Your task to perform on an android device: What's the weather going to be this weekend? Image 0: 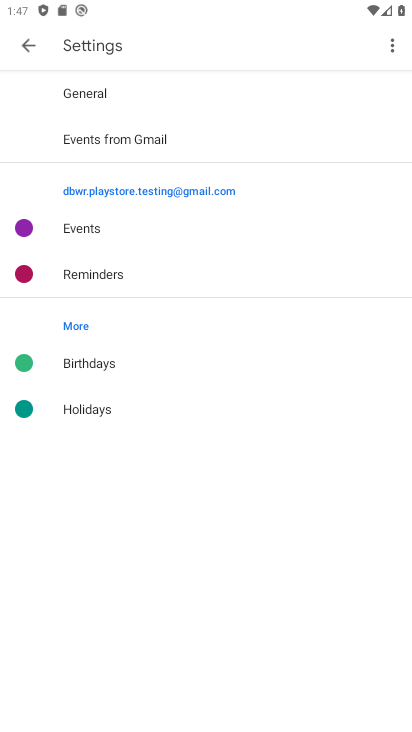
Step 0: press home button
Your task to perform on an android device: What's the weather going to be this weekend? Image 1: 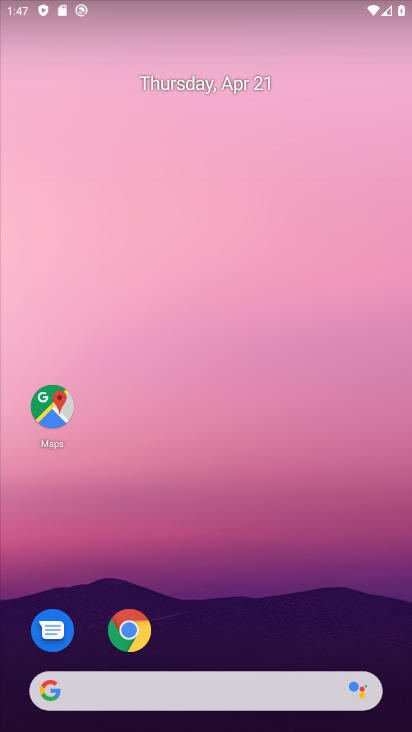
Step 1: drag from (266, 622) to (272, 127)
Your task to perform on an android device: What's the weather going to be this weekend? Image 2: 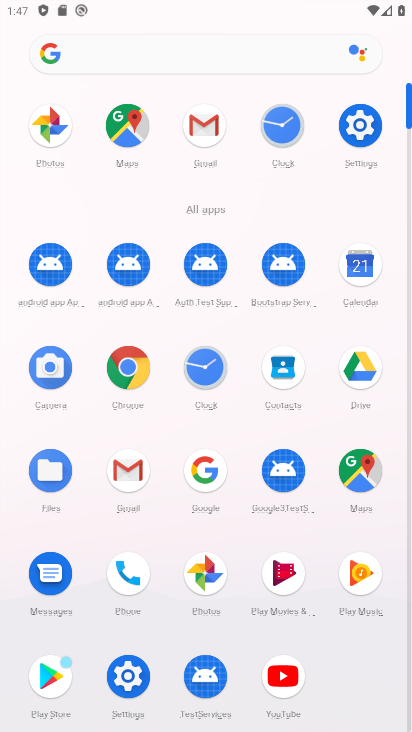
Step 2: click (129, 365)
Your task to perform on an android device: What's the weather going to be this weekend? Image 3: 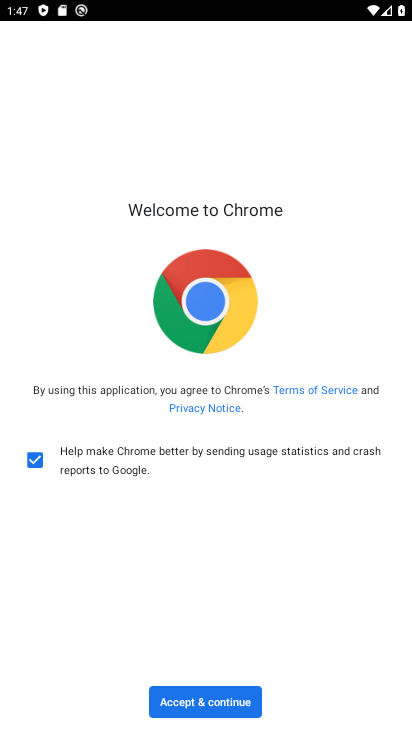
Step 3: click (188, 691)
Your task to perform on an android device: What's the weather going to be this weekend? Image 4: 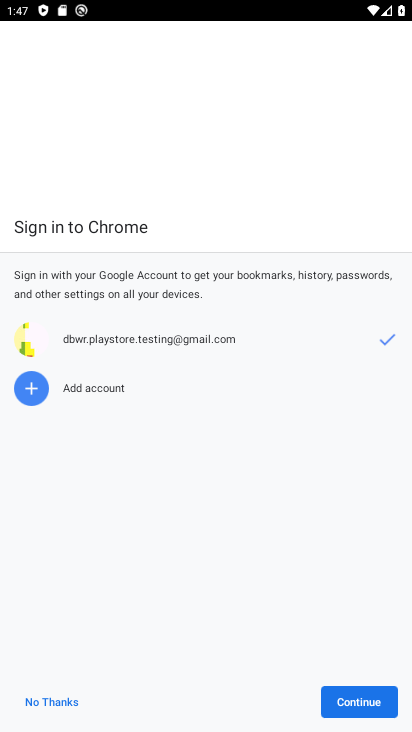
Step 4: click (363, 700)
Your task to perform on an android device: What's the weather going to be this weekend? Image 5: 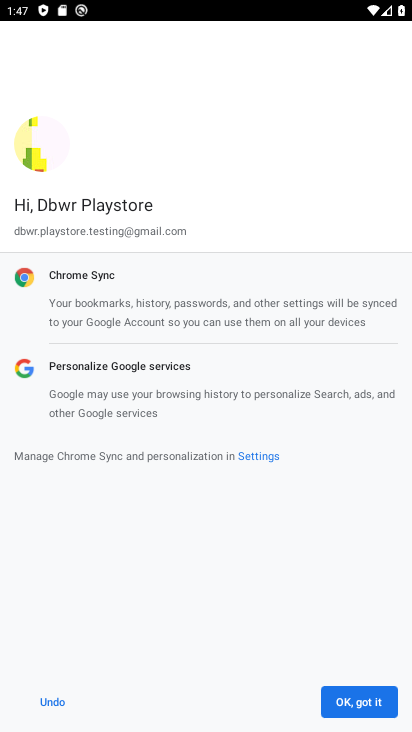
Step 5: click (363, 700)
Your task to perform on an android device: What's the weather going to be this weekend? Image 6: 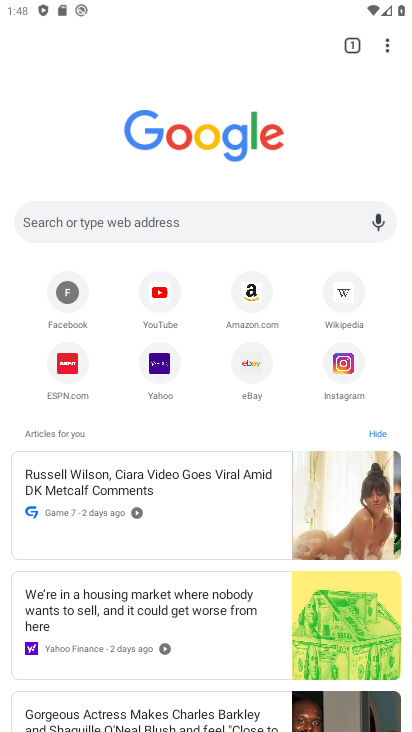
Step 6: click (228, 221)
Your task to perform on an android device: What's the weather going to be this weekend? Image 7: 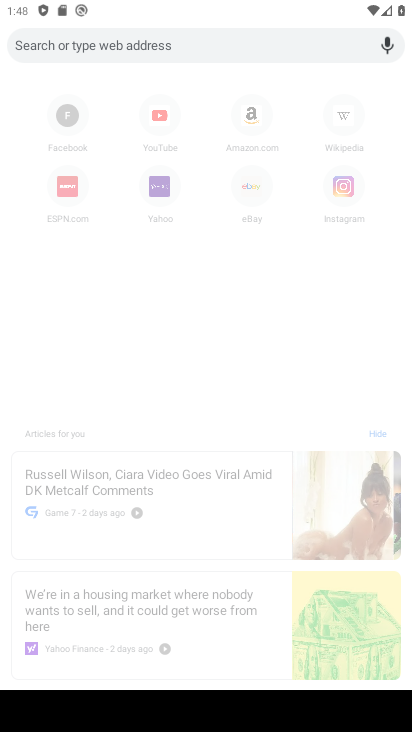
Step 7: type "what's the weather going to be this weekend"
Your task to perform on an android device: What's the weather going to be this weekend? Image 8: 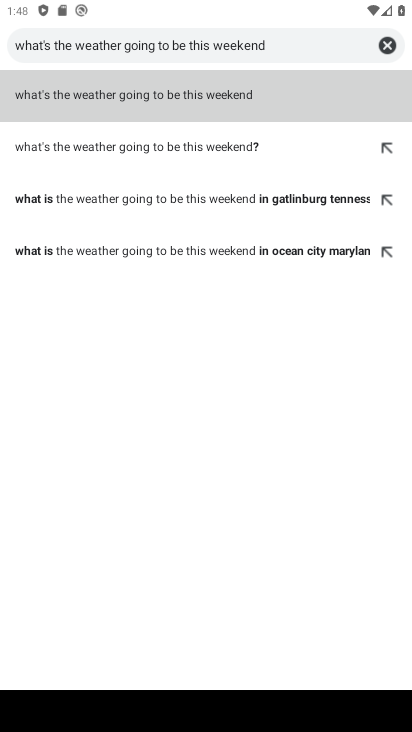
Step 8: click (217, 99)
Your task to perform on an android device: What's the weather going to be this weekend? Image 9: 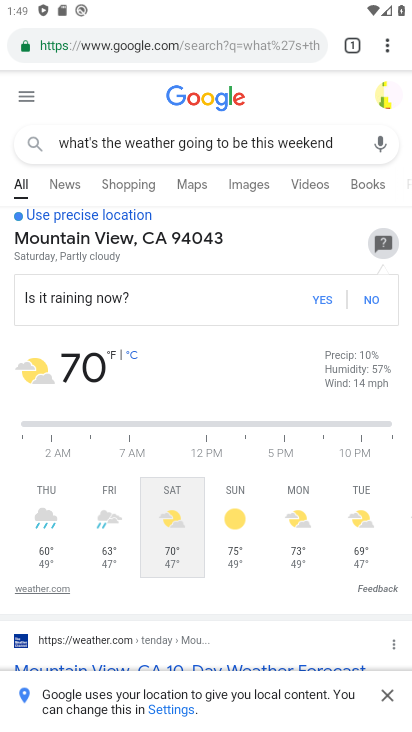
Step 9: task complete